Your task to perform on an android device: Open Chrome and go to settings Image 0: 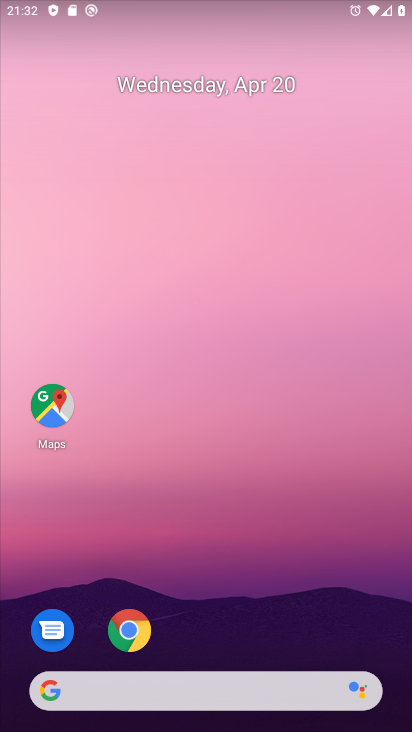
Step 0: click (132, 630)
Your task to perform on an android device: Open Chrome and go to settings Image 1: 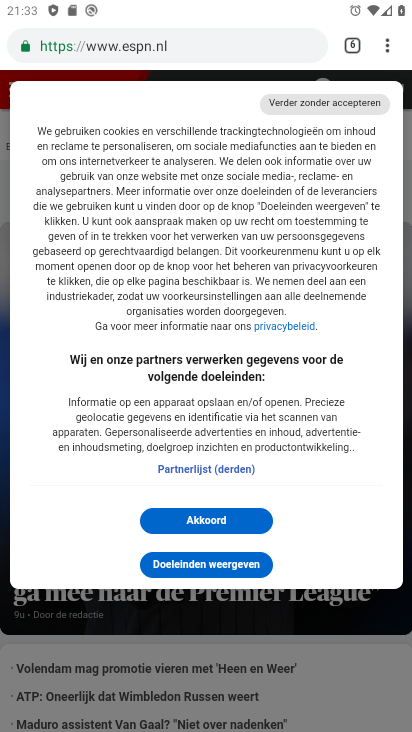
Step 1: click (393, 42)
Your task to perform on an android device: Open Chrome and go to settings Image 2: 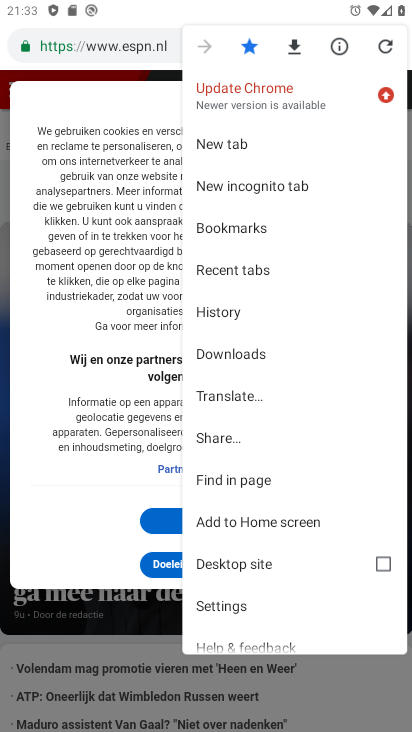
Step 2: click (224, 603)
Your task to perform on an android device: Open Chrome and go to settings Image 3: 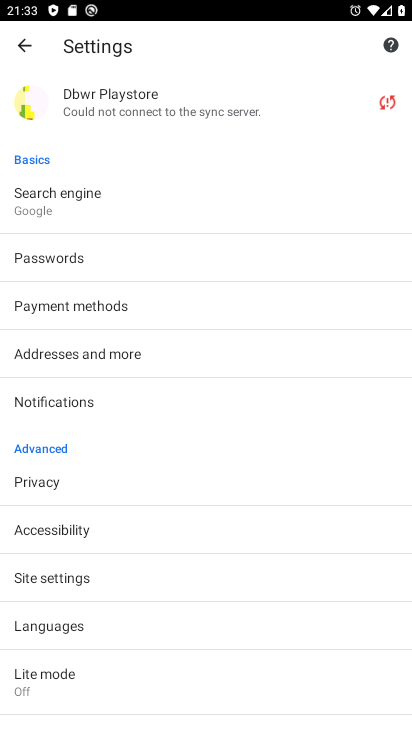
Step 3: task complete